Your task to perform on an android device: add a label to a message in the gmail app Image 0: 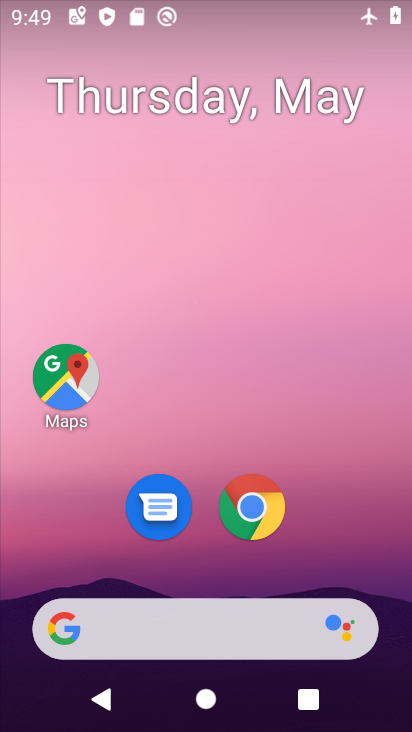
Step 0: drag from (272, 614) to (267, 115)
Your task to perform on an android device: add a label to a message in the gmail app Image 1: 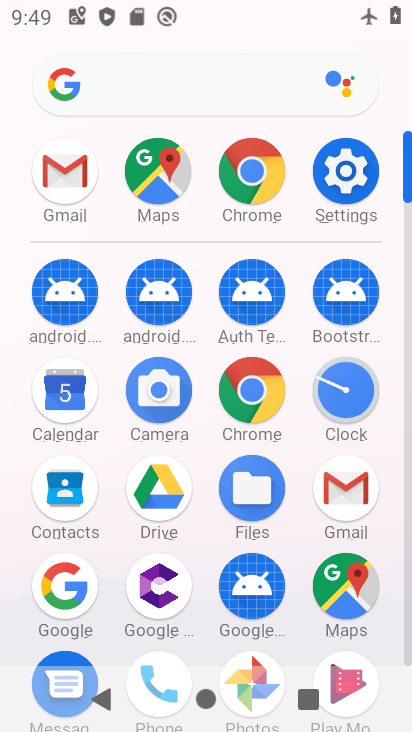
Step 1: click (340, 495)
Your task to perform on an android device: add a label to a message in the gmail app Image 2: 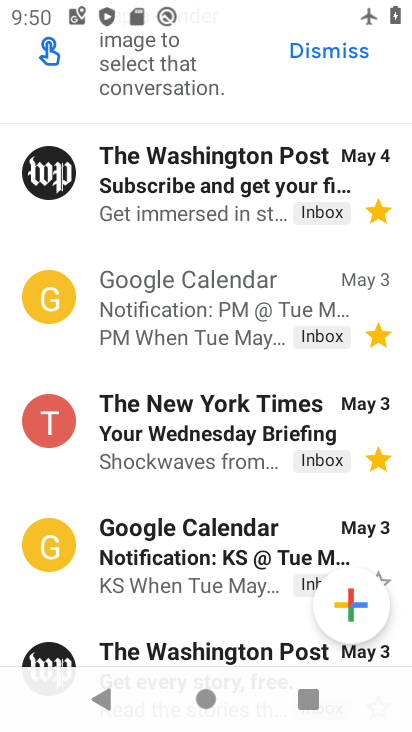
Step 2: drag from (151, 224) to (95, 654)
Your task to perform on an android device: add a label to a message in the gmail app Image 3: 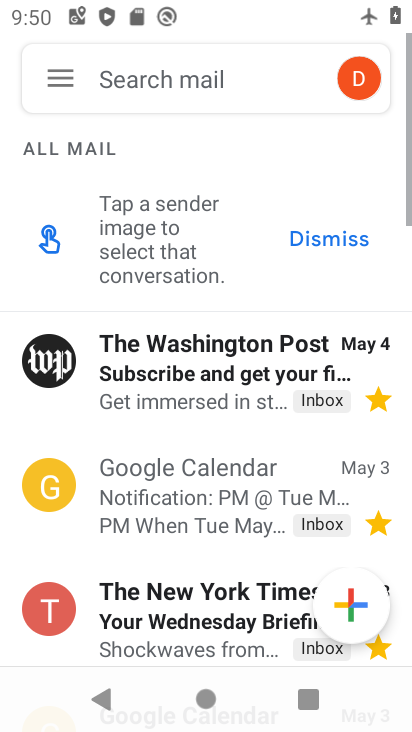
Step 3: click (78, 94)
Your task to perform on an android device: add a label to a message in the gmail app Image 4: 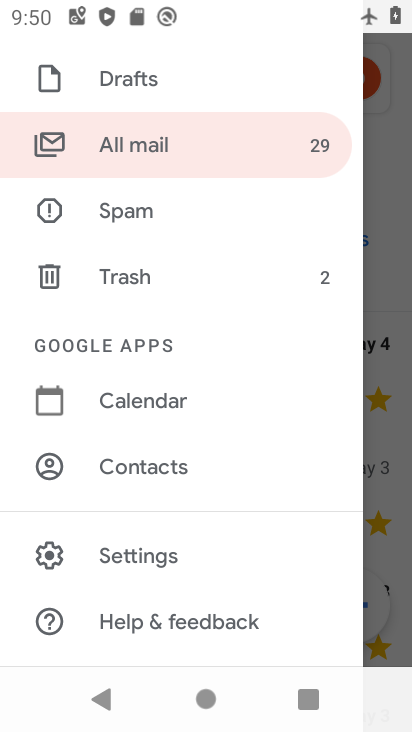
Step 4: drag from (195, 558) to (205, 479)
Your task to perform on an android device: add a label to a message in the gmail app Image 5: 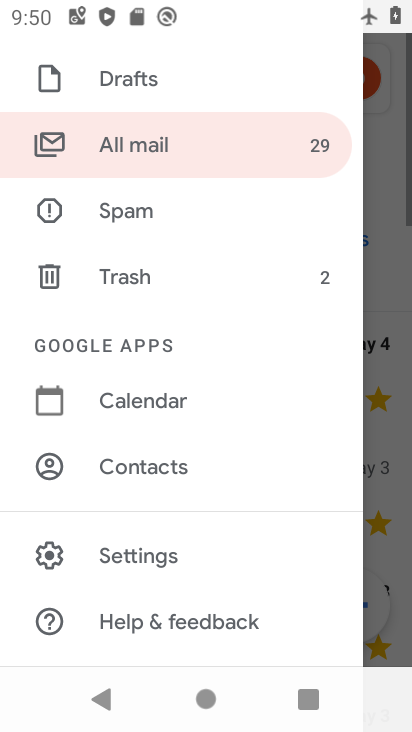
Step 5: click (216, 148)
Your task to perform on an android device: add a label to a message in the gmail app Image 6: 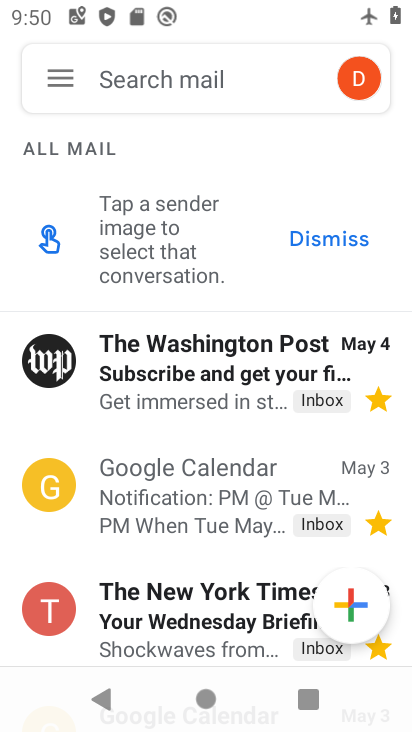
Step 6: click (160, 508)
Your task to perform on an android device: add a label to a message in the gmail app Image 7: 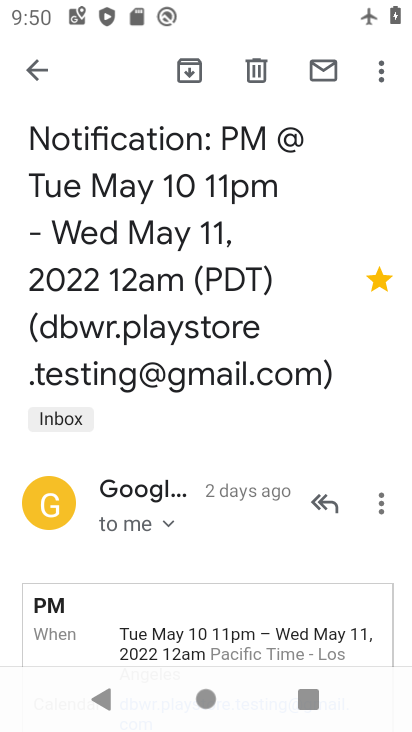
Step 7: click (156, 507)
Your task to perform on an android device: add a label to a message in the gmail app Image 8: 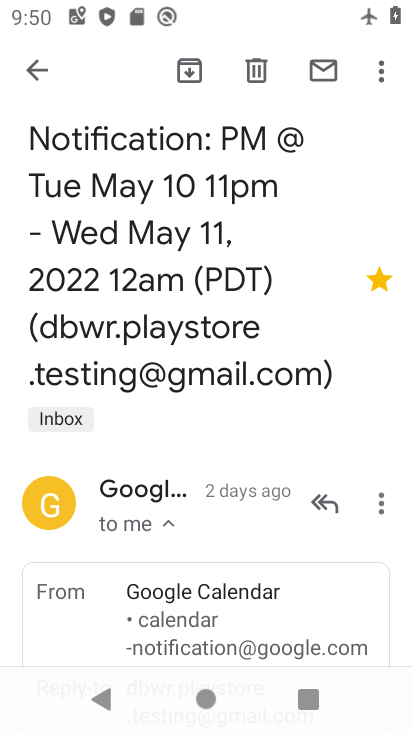
Step 8: drag from (190, 542) to (215, 156)
Your task to perform on an android device: add a label to a message in the gmail app Image 9: 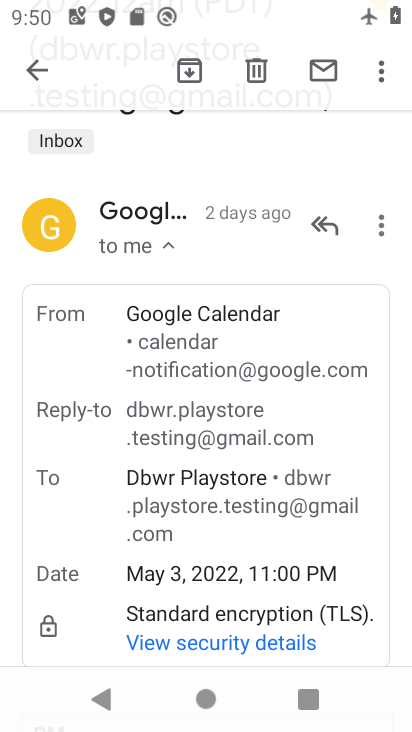
Step 9: click (378, 78)
Your task to perform on an android device: add a label to a message in the gmail app Image 10: 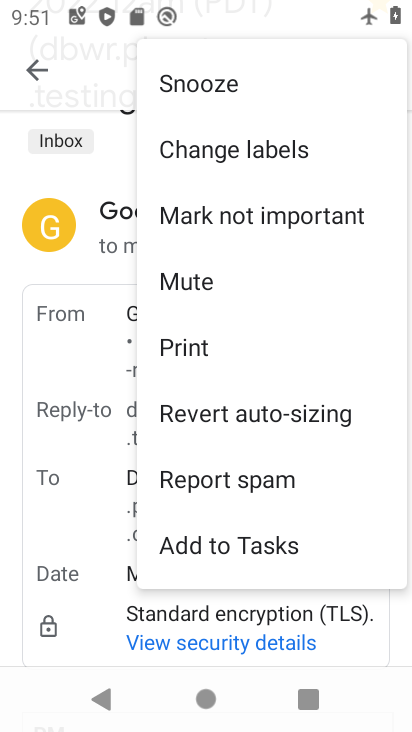
Step 10: click (300, 154)
Your task to perform on an android device: add a label to a message in the gmail app Image 11: 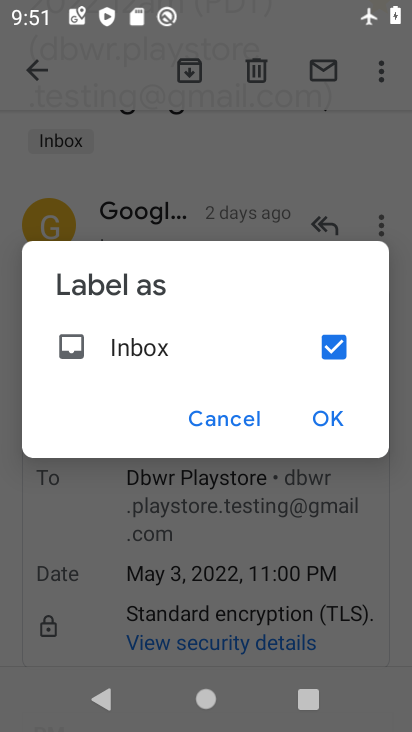
Step 11: click (330, 413)
Your task to perform on an android device: add a label to a message in the gmail app Image 12: 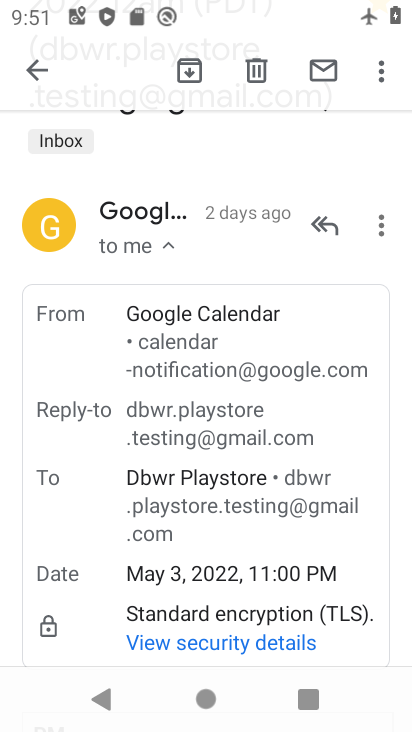
Step 12: task complete